Your task to perform on an android device: open the mobile data screen to see how much data has been used Image 0: 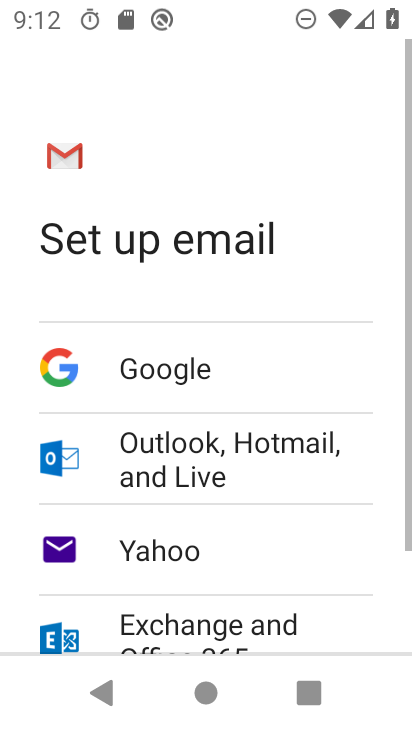
Step 0: press home button
Your task to perform on an android device: open the mobile data screen to see how much data has been used Image 1: 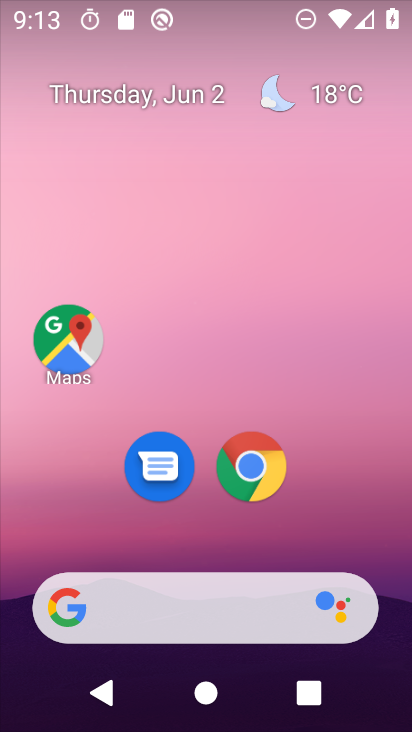
Step 1: drag from (191, 546) to (200, 32)
Your task to perform on an android device: open the mobile data screen to see how much data has been used Image 2: 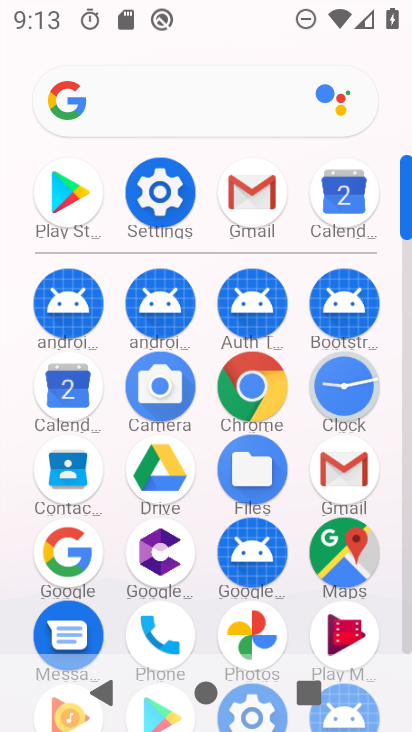
Step 2: click (146, 188)
Your task to perform on an android device: open the mobile data screen to see how much data has been used Image 3: 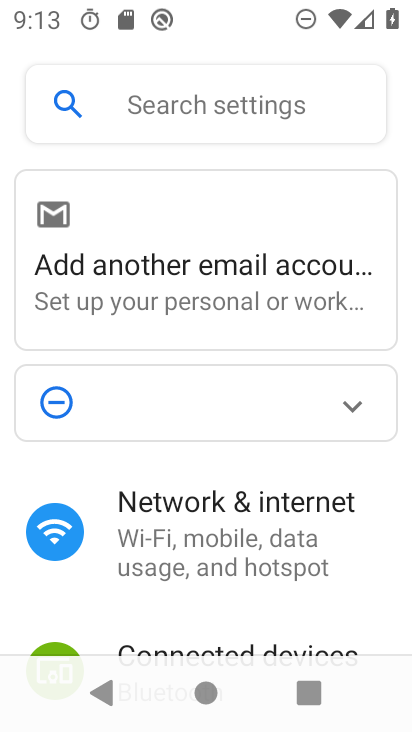
Step 3: click (227, 540)
Your task to perform on an android device: open the mobile data screen to see how much data has been used Image 4: 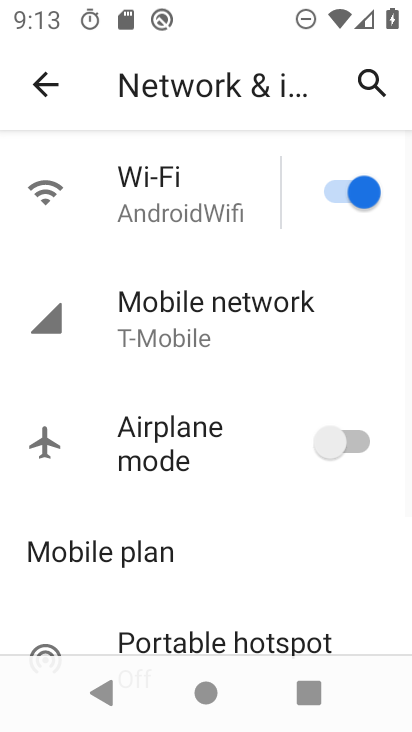
Step 4: drag from (227, 582) to (246, 269)
Your task to perform on an android device: open the mobile data screen to see how much data has been used Image 5: 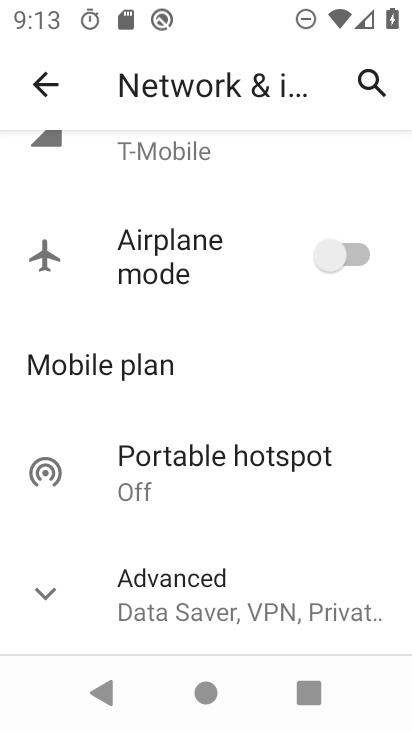
Step 5: drag from (246, 268) to (222, 560)
Your task to perform on an android device: open the mobile data screen to see how much data has been used Image 6: 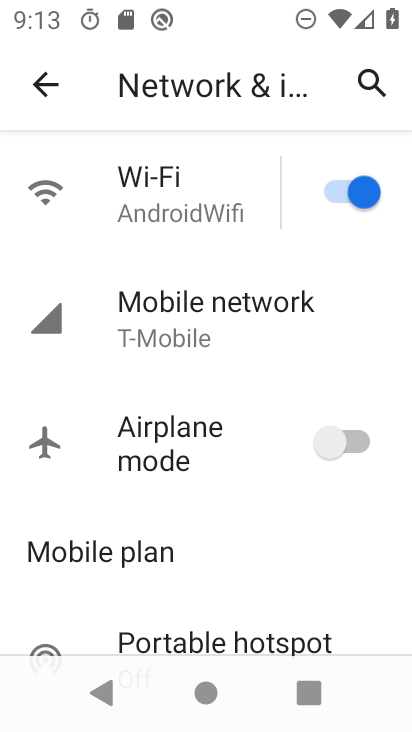
Step 6: click (204, 323)
Your task to perform on an android device: open the mobile data screen to see how much data has been used Image 7: 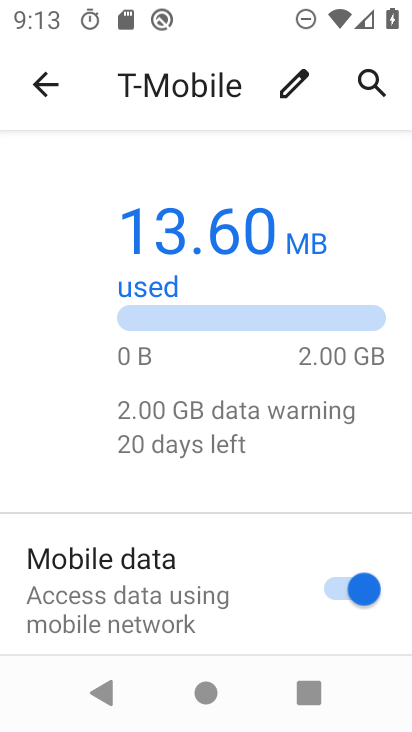
Step 7: drag from (248, 571) to (253, 197)
Your task to perform on an android device: open the mobile data screen to see how much data has been used Image 8: 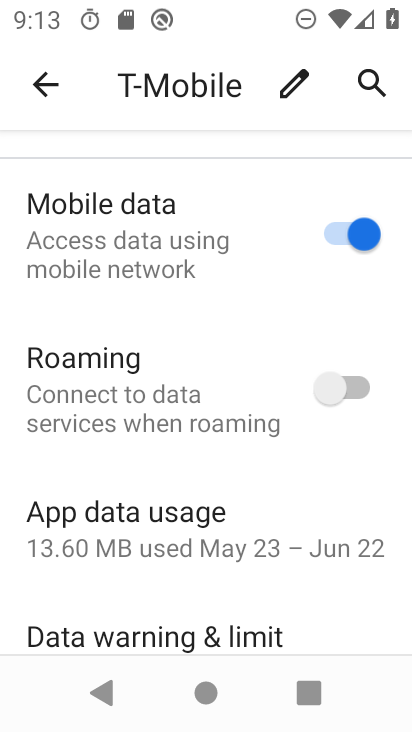
Step 8: click (135, 518)
Your task to perform on an android device: open the mobile data screen to see how much data has been used Image 9: 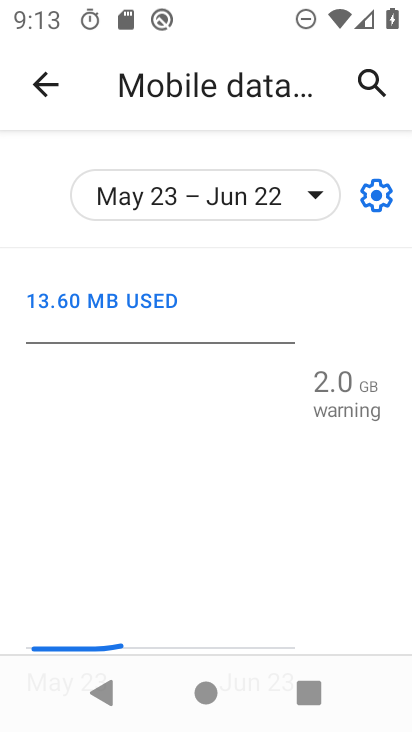
Step 9: task complete